Your task to perform on an android device: Open Youtube and go to the subscriptions tab Image 0: 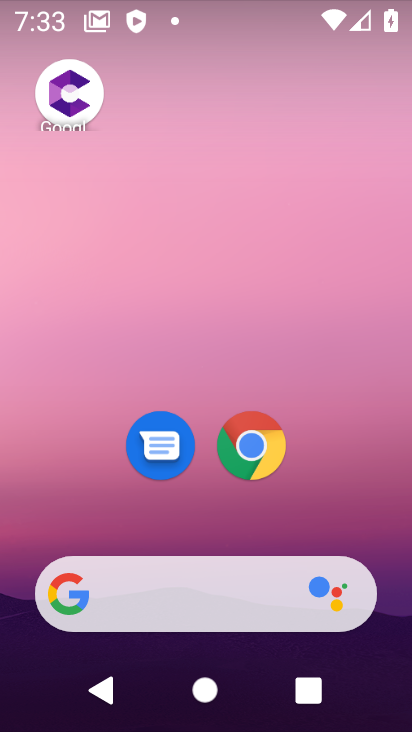
Step 0: drag from (283, 548) to (339, 176)
Your task to perform on an android device: Open Youtube and go to the subscriptions tab Image 1: 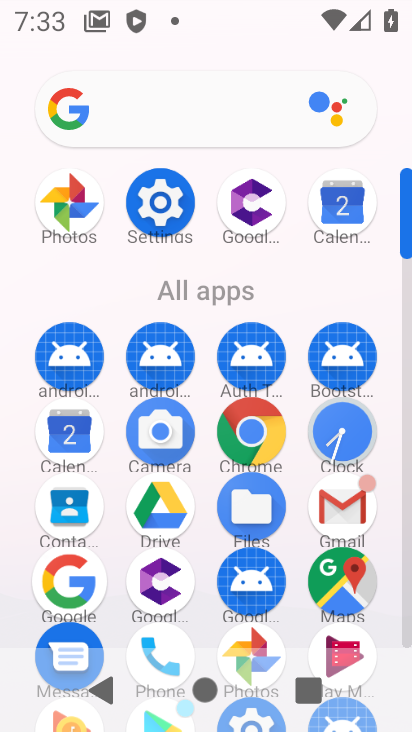
Step 1: drag from (299, 525) to (365, 77)
Your task to perform on an android device: Open Youtube and go to the subscriptions tab Image 2: 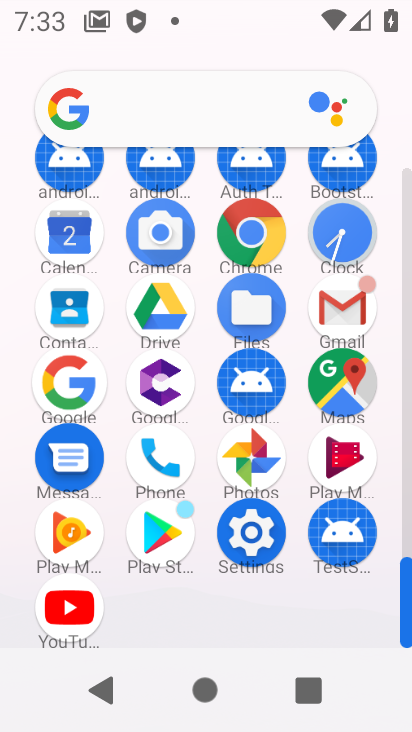
Step 2: click (66, 622)
Your task to perform on an android device: Open Youtube and go to the subscriptions tab Image 3: 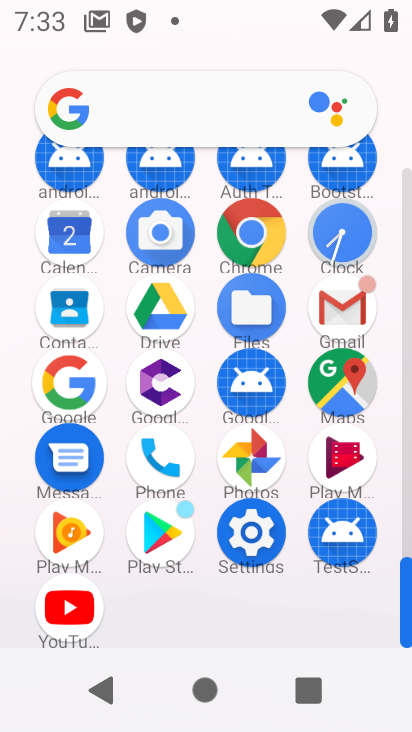
Step 3: click (66, 622)
Your task to perform on an android device: Open Youtube and go to the subscriptions tab Image 4: 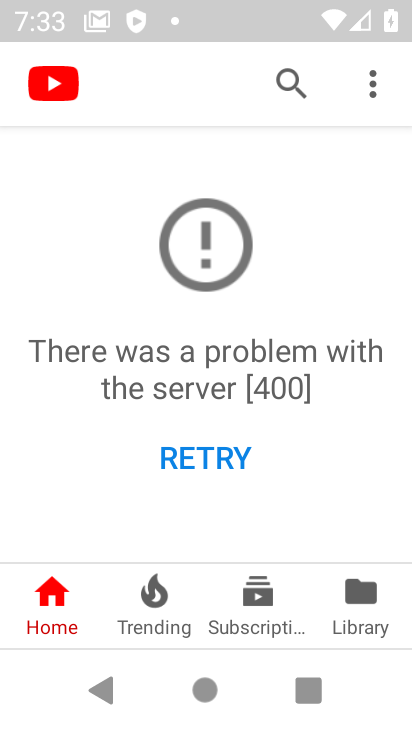
Step 4: click (236, 588)
Your task to perform on an android device: Open Youtube and go to the subscriptions tab Image 5: 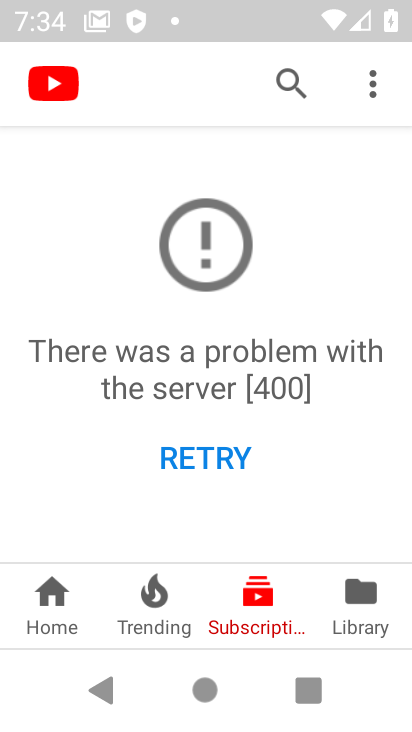
Step 5: task complete